Your task to perform on an android device: check out phone information Image 0: 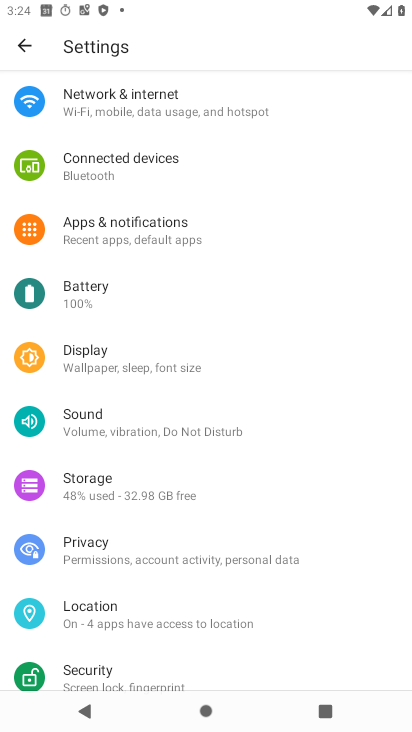
Step 0: press home button
Your task to perform on an android device: check out phone information Image 1: 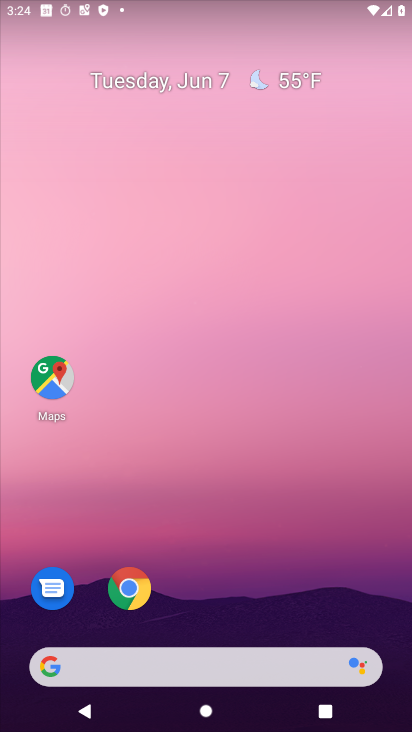
Step 1: drag from (291, 618) to (313, 55)
Your task to perform on an android device: check out phone information Image 2: 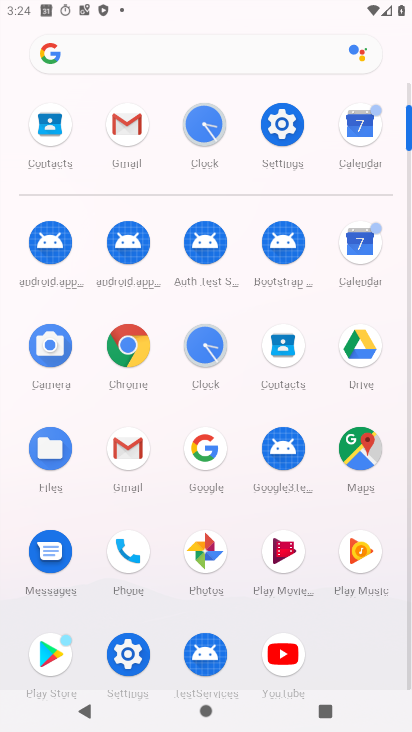
Step 2: click (282, 121)
Your task to perform on an android device: check out phone information Image 3: 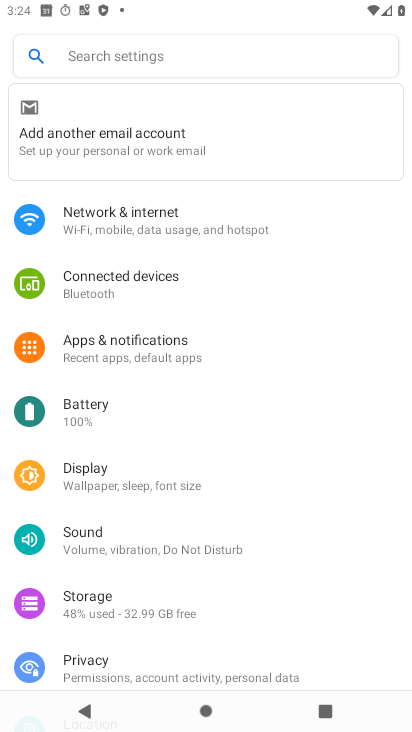
Step 3: drag from (303, 626) to (291, 30)
Your task to perform on an android device: check out phone information Image 4: 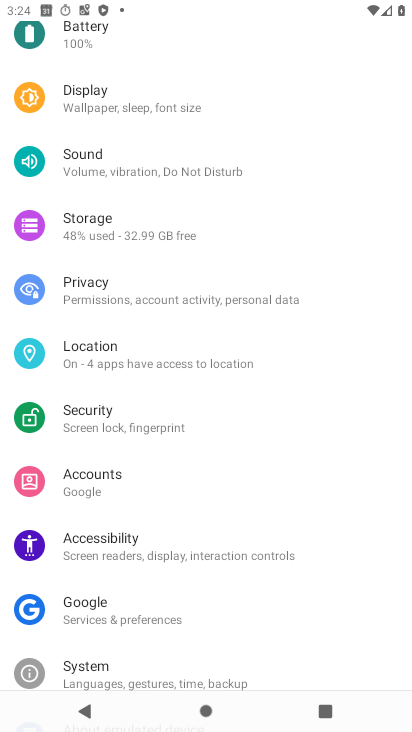
Step 4: drag from (294, 577) to (274, 55)
Your task to perform on an android device: check out phone information Image 5: 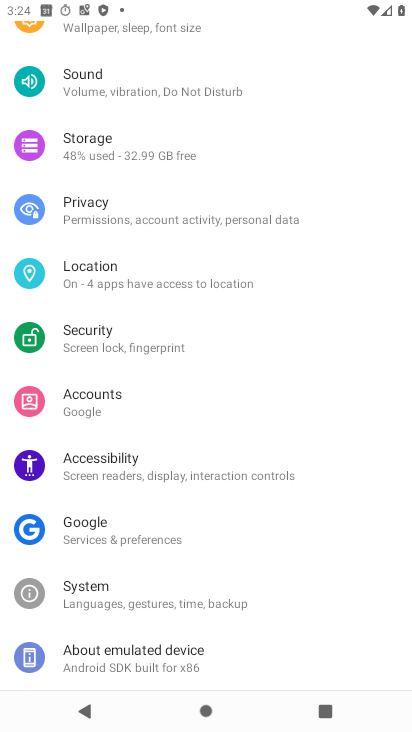
Step 5: click (132, 661)
Your task to perform on an android device: check out phone information Image 6: 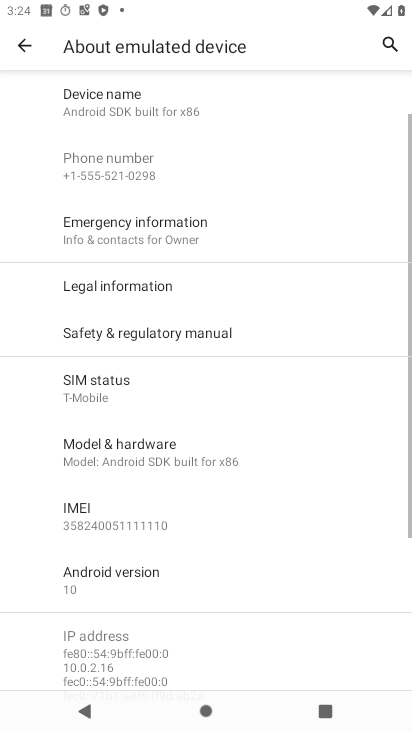
Step 6: task complete